Your task to perform on an android device: Check the weather Image 0: 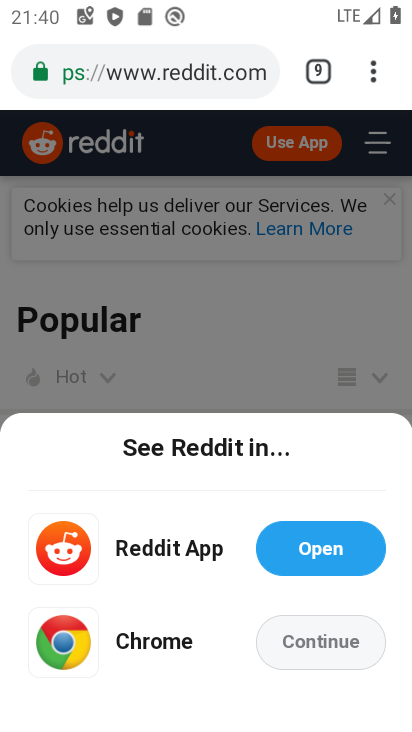
Step 0: press home button
Your task to perform on an android device: Check the weather Image 1: 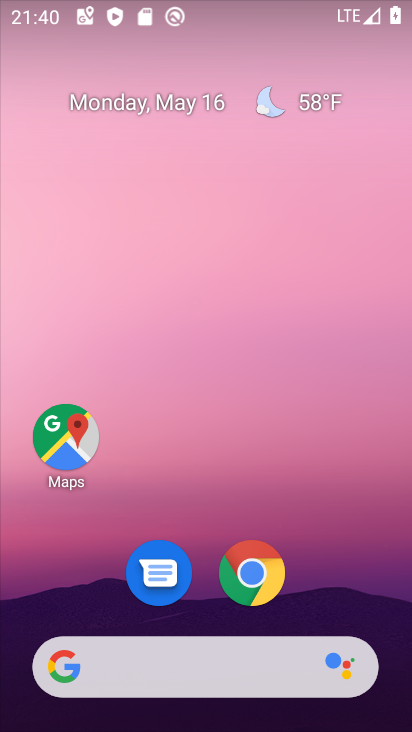
Step 1: click (272, 104)
Your task to perform on an android device: Check the weather Image 2: 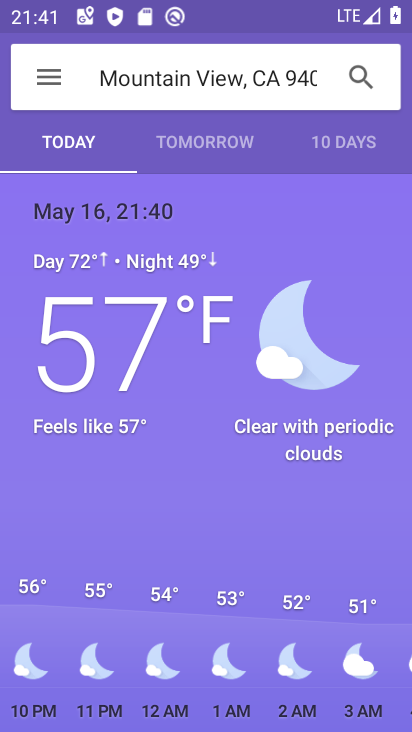
Step 2: task complete